Your task to perform on an android device: turn off javascript in the chrome app Image 0: 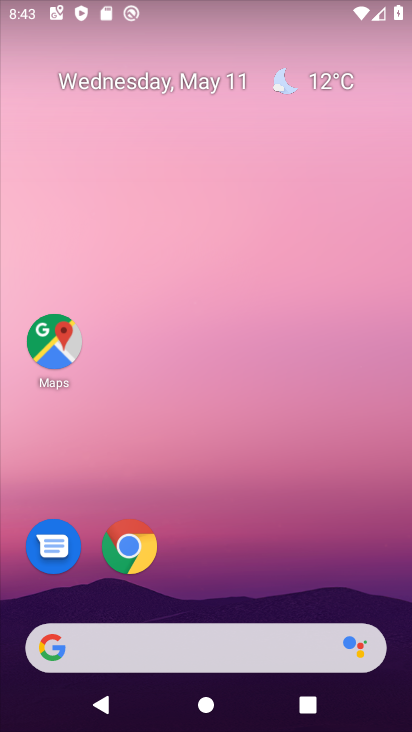
Step 0: click (126, 546)
Your task to perform on an android device: turn off javascript in the chrome app Image 1: 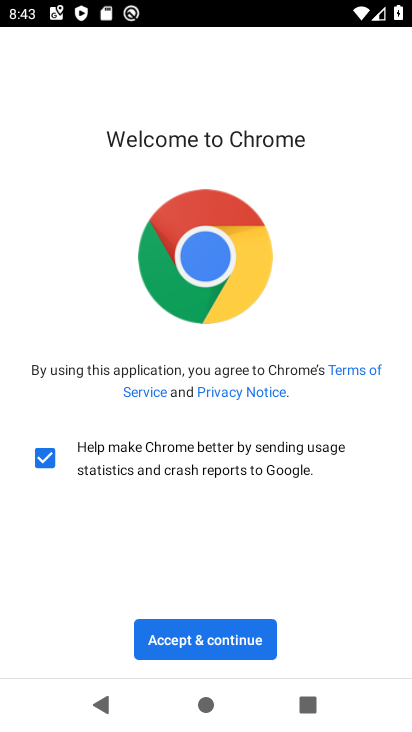
Step 1: click (214, 641)
Your task to perform on an android device: turn off javascript in the chrome app Image 2: 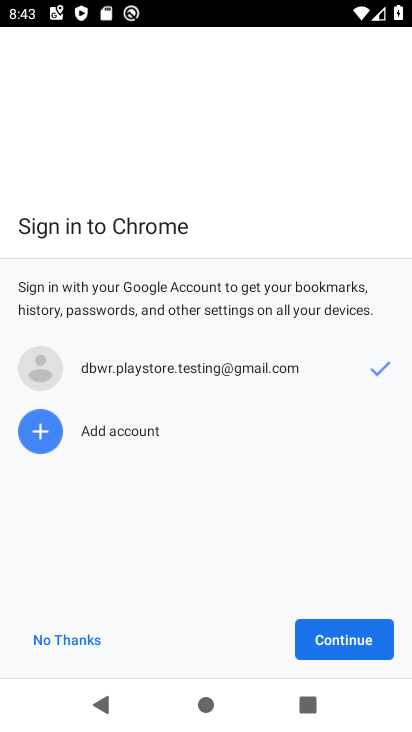
Step 2: click (345, 636)
Your task to perform on an android device: turn off javascript in the chrome app Image 3: 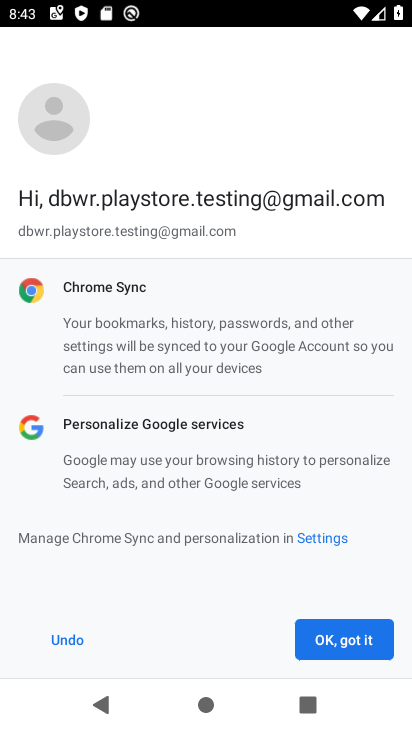
Step 3: click (345, 636)
Your task to perform on an android device: turn off javascript in the chrome app Image 4: 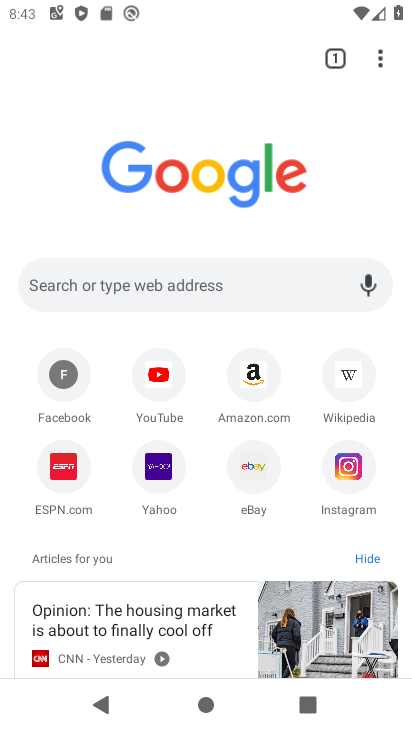
Step 4: click (378, 65)
Your task to perform on an android device: turn off javascript in the chrome app Image 5: 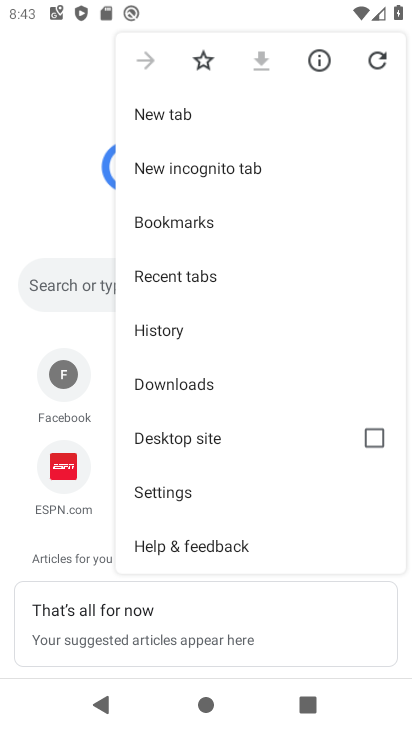
Step 5: click (175, 479)
Your task to perform on an android device: turn off javascript in the chrome app Image 6: 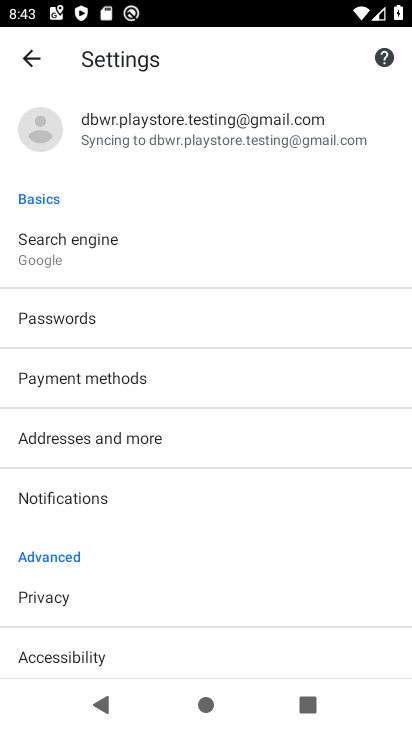
Step 6: drag from (185, 641) to (159, 178)
Your task to perform on an android device: turn off javascript in the chrome app Image 7: 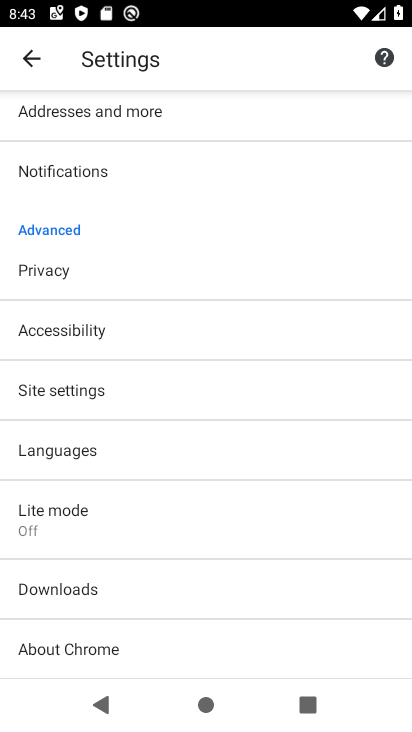
Step 7: click (81, 397)
Your task to perform on an android device: turn off javascript in the chrome app Image 8: 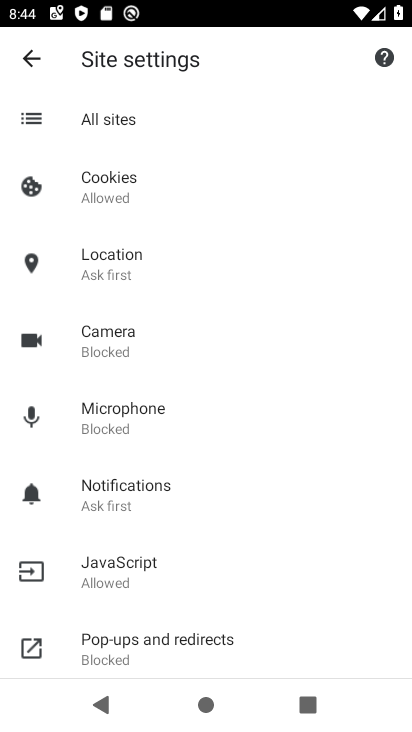
Step 8: click (106, 575)
Your task to perform on an android device: turn off javascript in the chrome app Image 9: 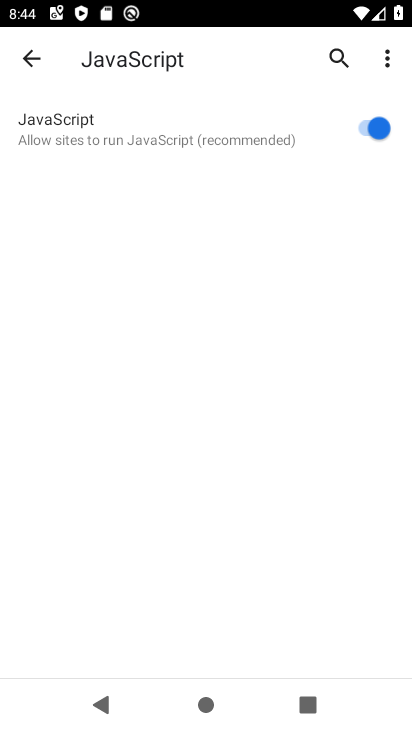
Step 9: click (358, 129)
Your task to perform on an android device: turn off javascript in the chrome app Image 10: 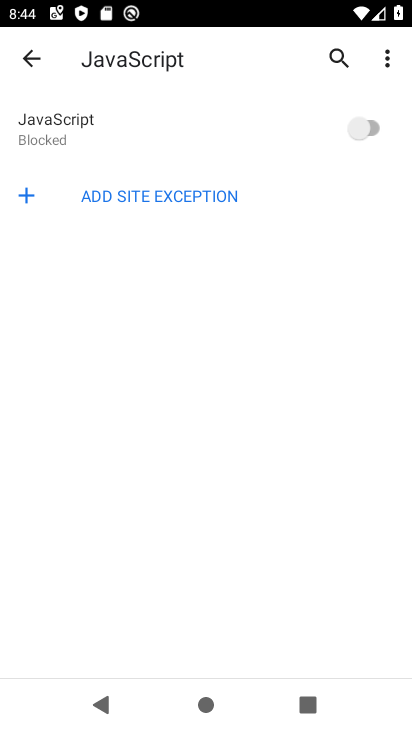
Step 10: task complete